Your task to perform on an android device: Go to Android settings Image 0: 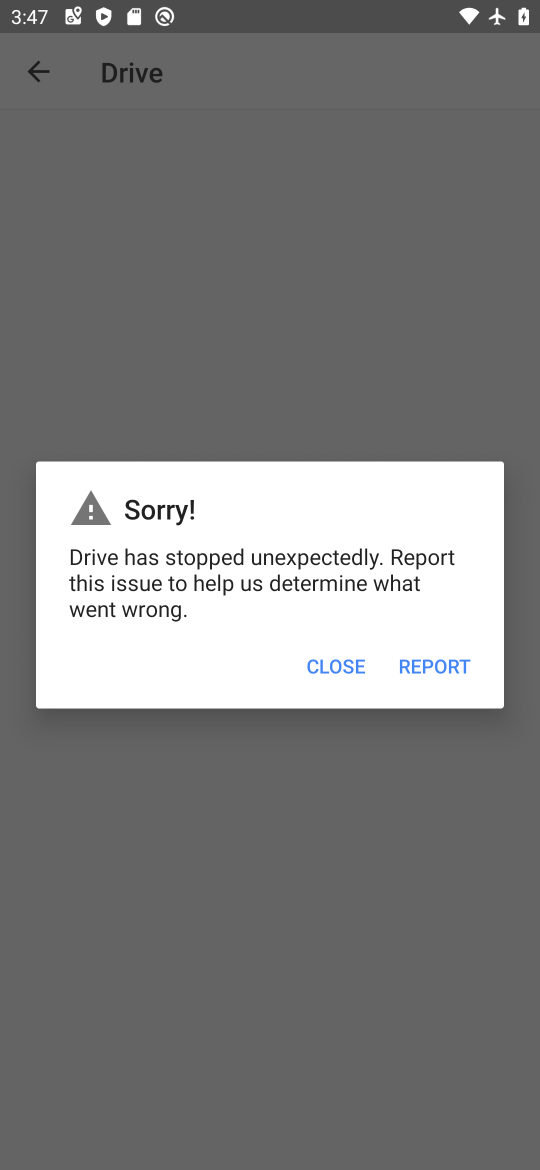
Step 0: press home button
Your task to perform on an android device: Go to Android settings Image 1: 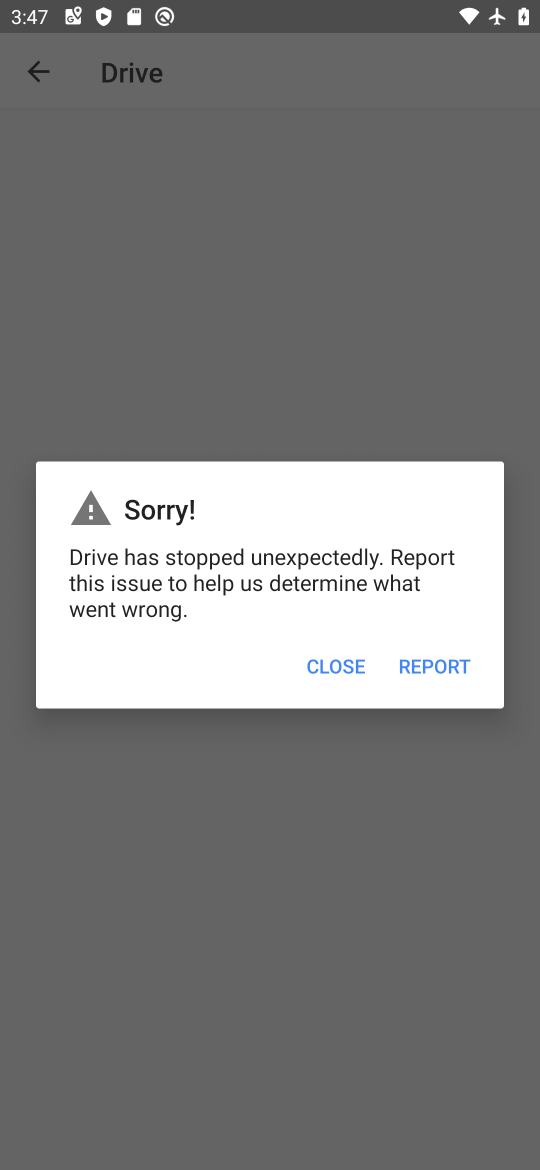
Step 1: press home button
Your task to perform on an android device: Go to Android settings Image 2: 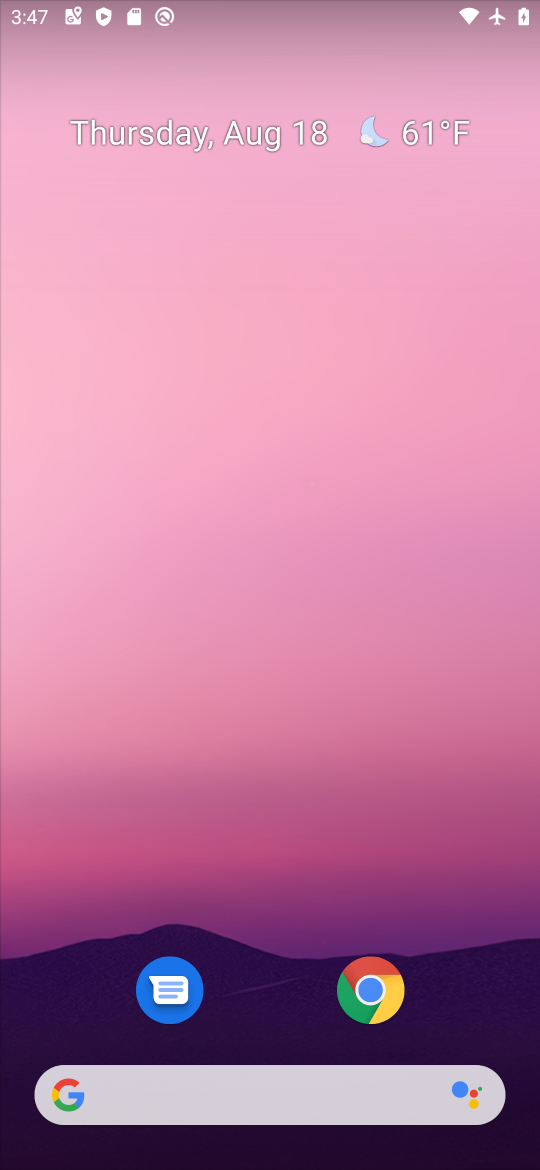
Step 2: drag from (251, 973) to (355, 108)
Your task to perform on an android device: Go to Android settings Image 3: 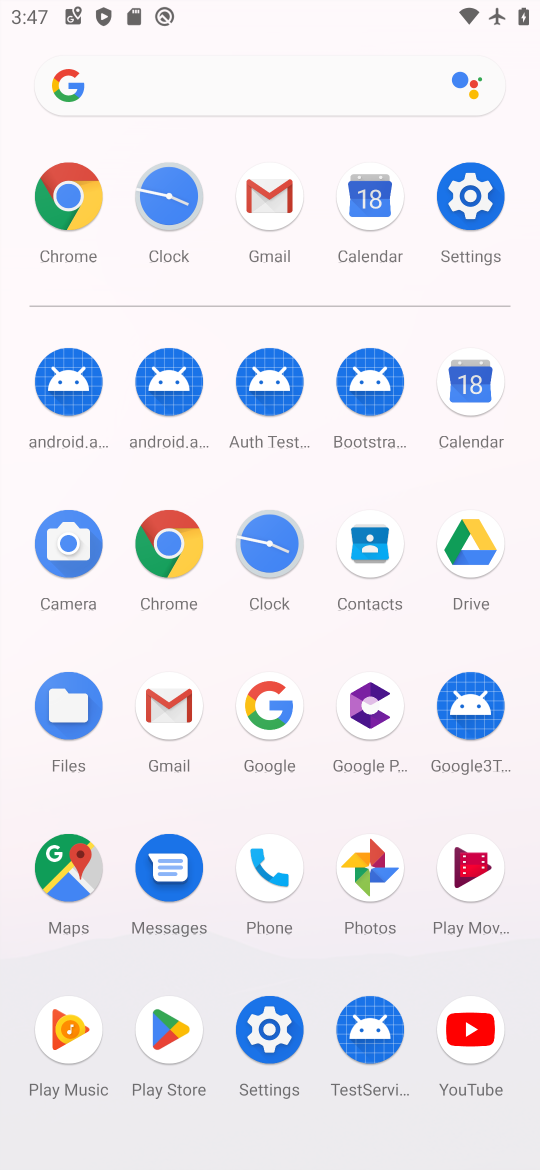
Step 3: click (279, 1033)
Your task to perform on an android device: Go to Android settings Image 4: 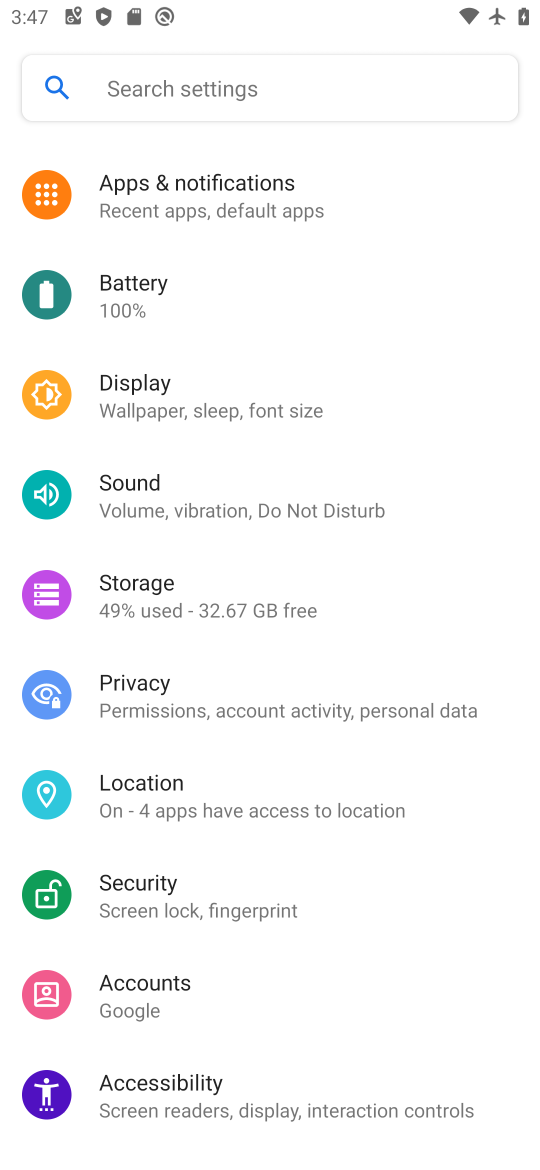
Step 4: task complete